Your task to perform on an android device: Go to calendar. Show me events next week Image 0: 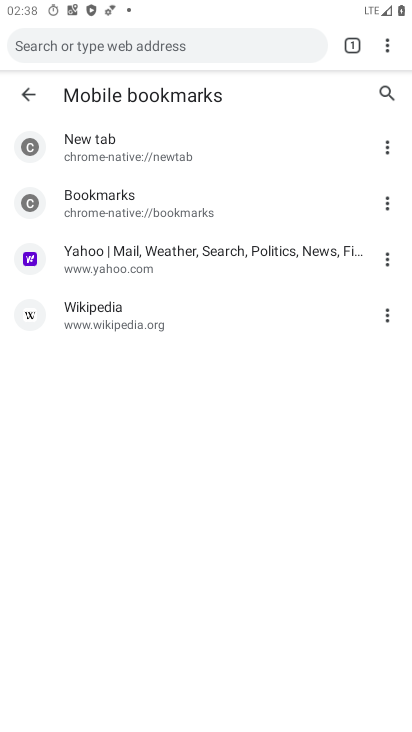
Step 0: press home button
Your task to perform on an android device: Go to calendar. Show me events next week Image 1: 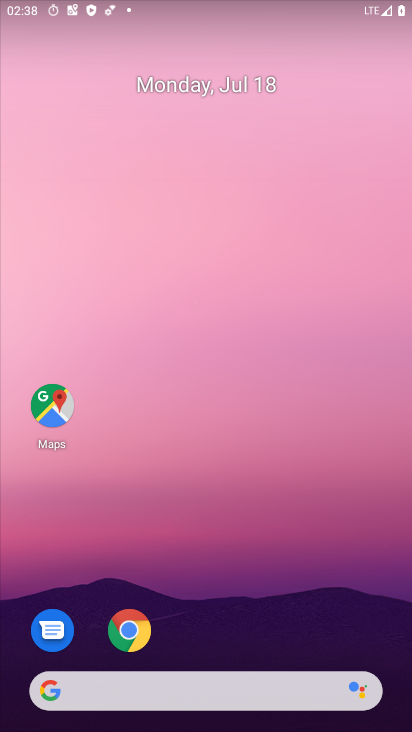
Step 1: click (197, 81)
Your task to perform on an android device: Go to calendar. Show me events next week Image 2: 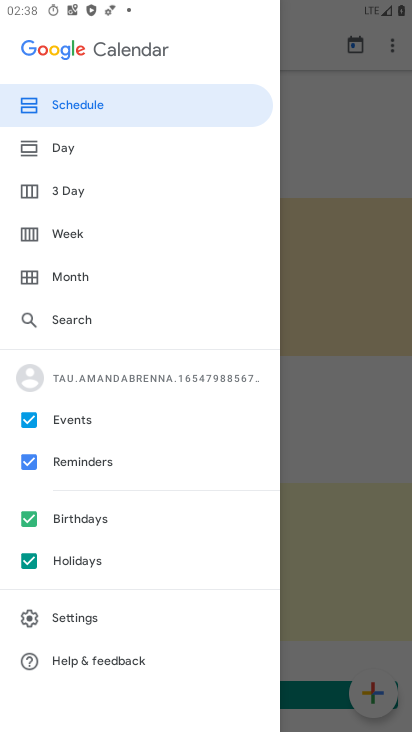
Step 2: click (29, 464)
Your task to perform on an android device: Go to calendar. Show me events next week Image 3: 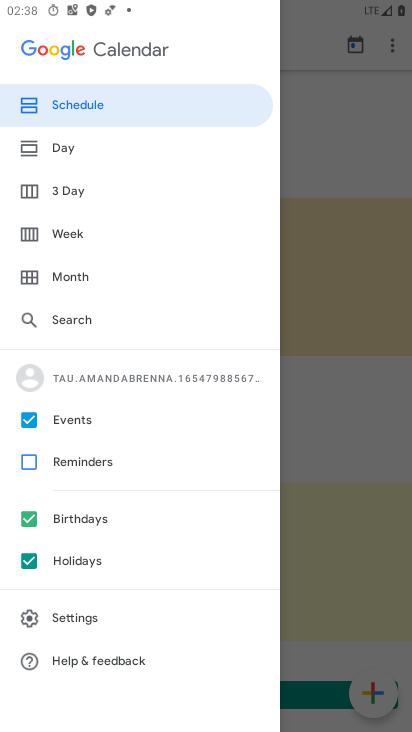
Step 3: click (28, 514)
Your task to perform on an android device: Go to calendar. Show me events next week Image 4: 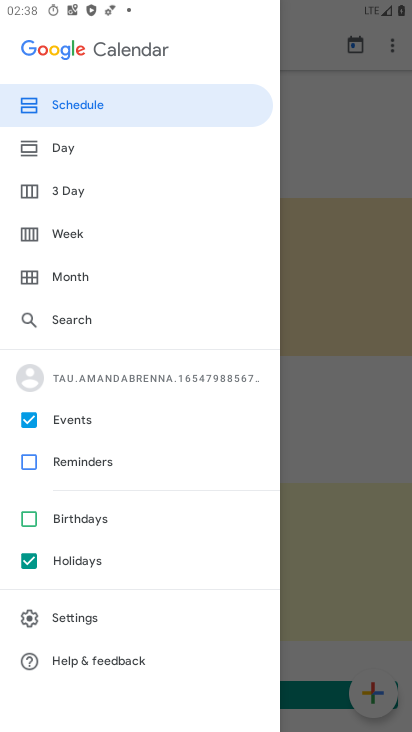
Step 4: click (26, 563)
Your task to perform on an android device: Go to calendar. Show me events next week Image 5: 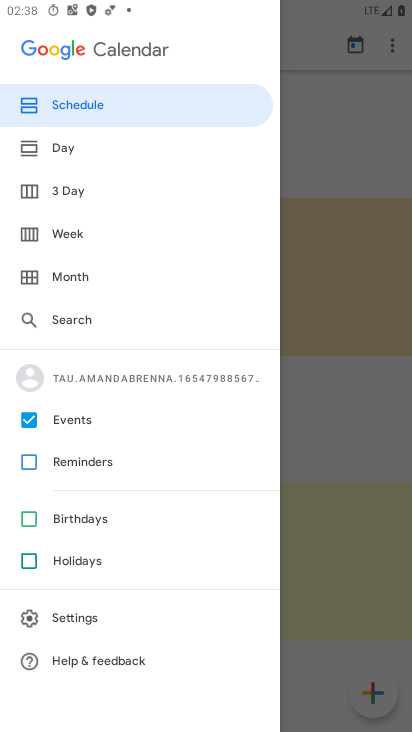
Step 5: click (77, 228)
Your task to perform on an android device: Go to calendar. Show me events next week Image 6: 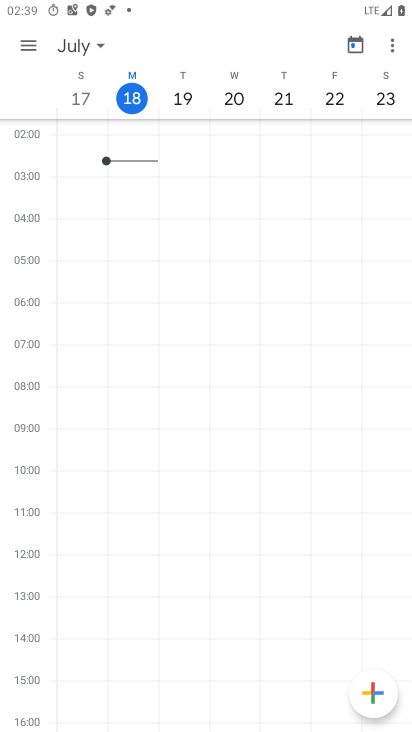
Step 6: task complete